Your task to perform on an android device: turn on location history Image 0: 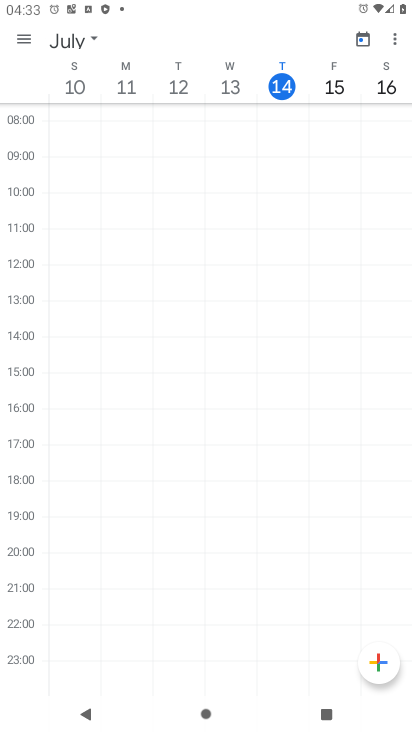
Step 0: press home button
Your task to perform on an android device: turn on location history Image 1: 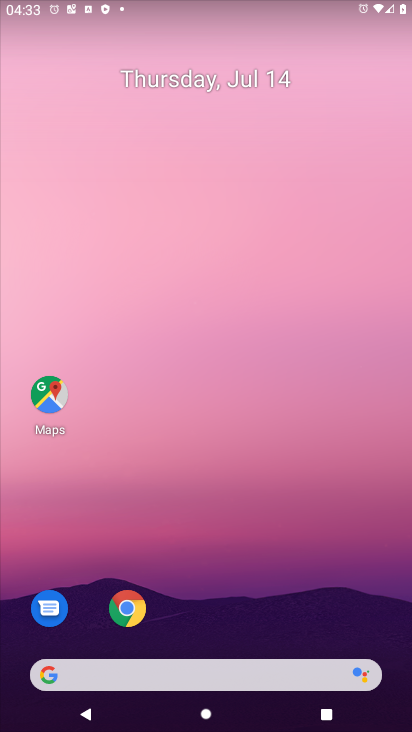
Step 1: click (49, 394)
Your task to perform on an android device: turn on location history Image 2: 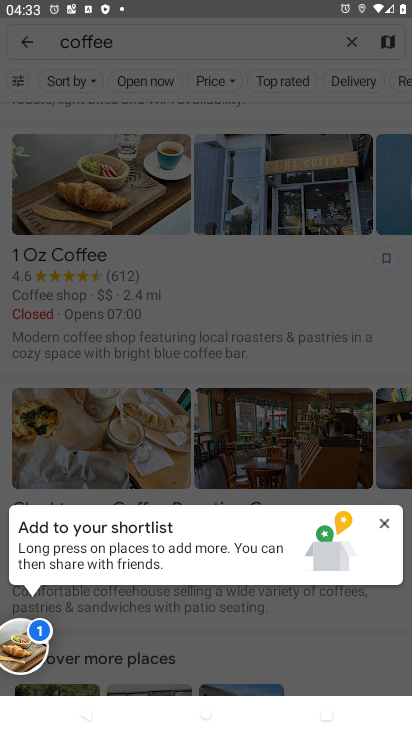
Step 2: click (383, 520)
Your task to perform on an android device: turn on location history Image 3: 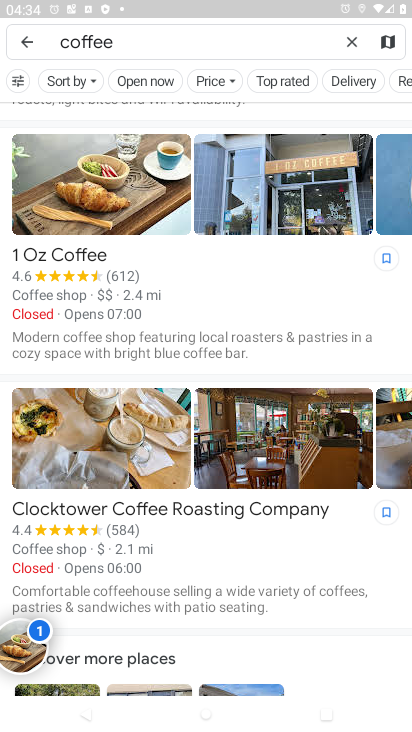
Step 3: click (349, 41)
Your task to perform on an android device: turn on location history Image 4: 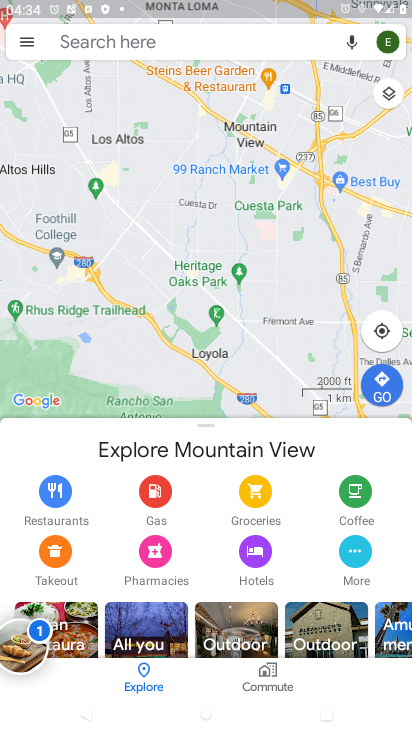
Step 4: click (26, 40)
Your task to perform on an android device: turn on location history Image 5: 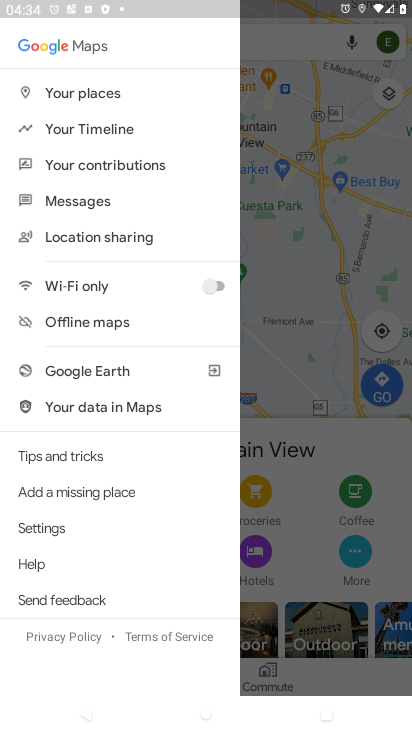
Step 5: click (40, 531)
Your task to perform on an android device: turn on location history Image 6: 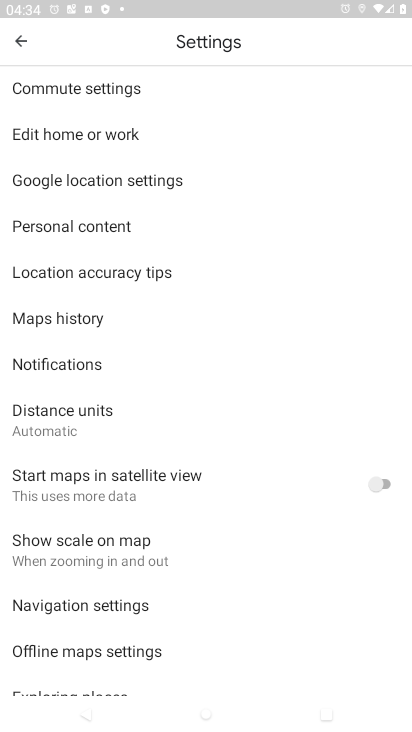
Step 6: click (59, 221)
Your task to perform on an android device: turn on location history Image 7: 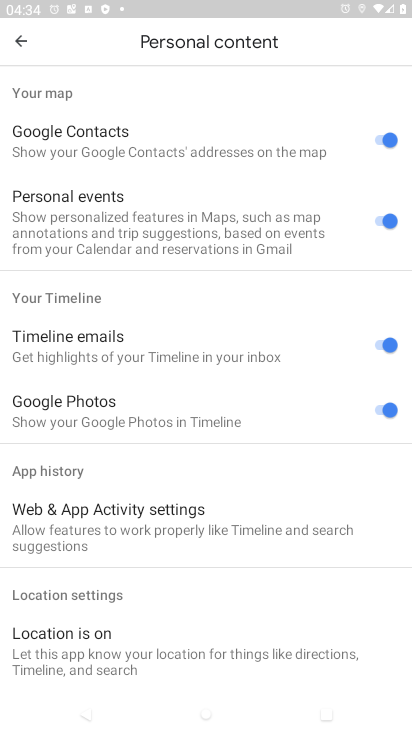
Step 7: drag from (168, 626) to (193, 204)
Your task to perform on an android device: turn on location history Image 8: 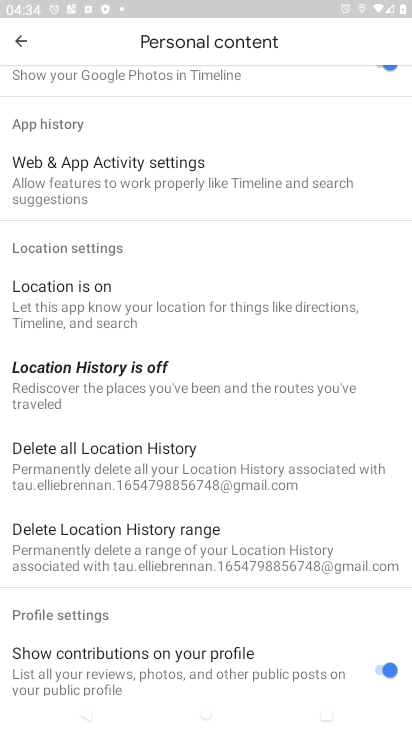
Step 8: click (82, 376)
Your task to perform on an android device: turn on location history Image 9: 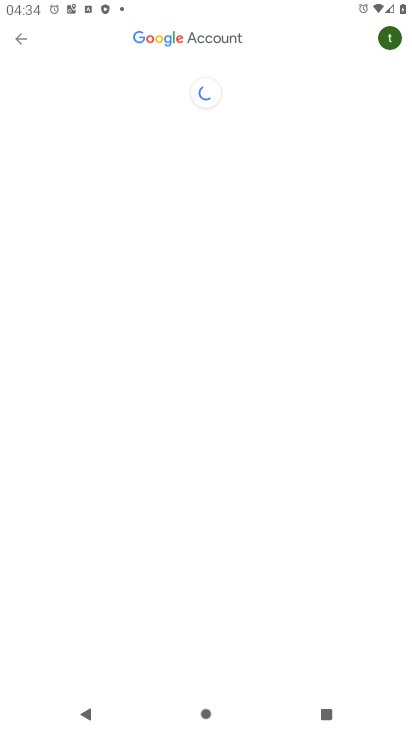
Step 9: click (340, 604)
Your task to perform on an android device: turn on location history Image 10: 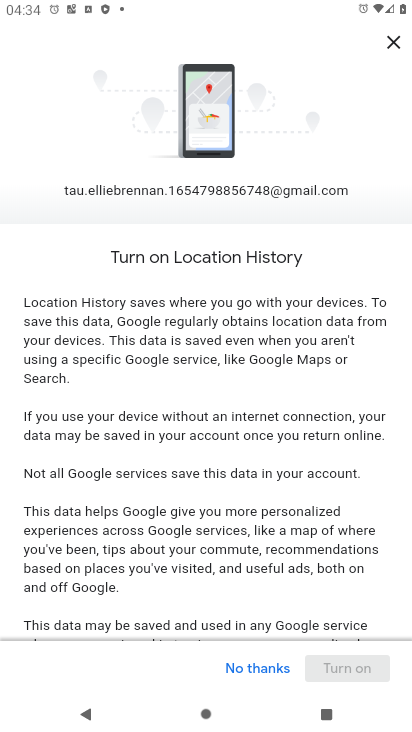
Step 10: drag from (300, 591) to (285, 187)
Your task to perform on an android device: turn on location history Image 11: 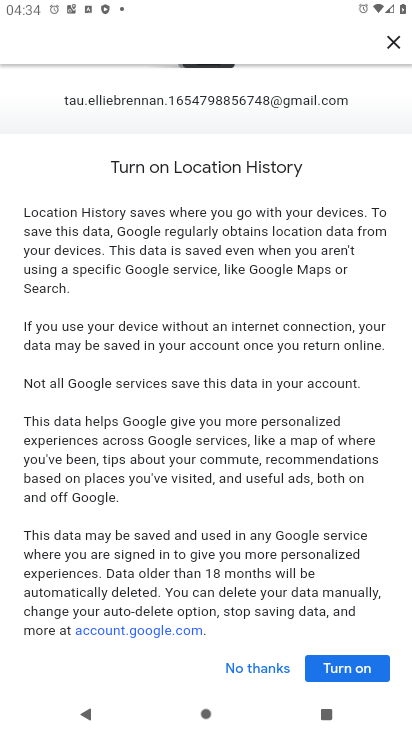
Step 11: click (342, 668)
Your task to perform on an android device: turn on location history Image 12: 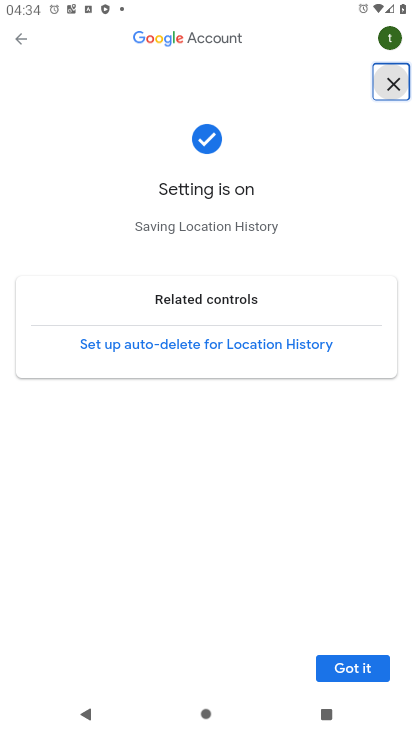
Step 12: click (349, 667)
Your task to perform on an android device: turn on location history Image 13: 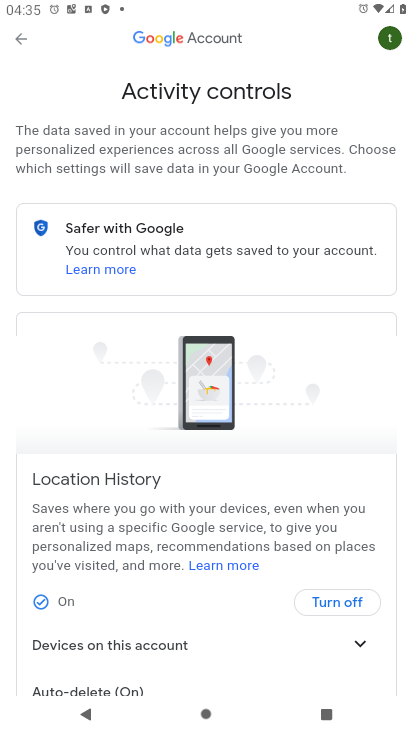
Step 13: task complete